Your task to perform on an android device: Add "usb-c to usb-a" to the cart on walmart.com, then select checkout. Image 0: 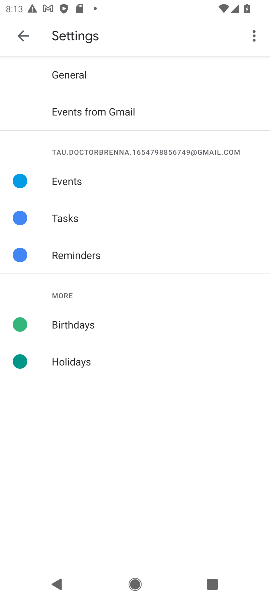
Step 0: press home button
Your task to perform on an android device: Add "usb-c to usb-a" to the cart on walmart.com, then select checkout. Image 1: 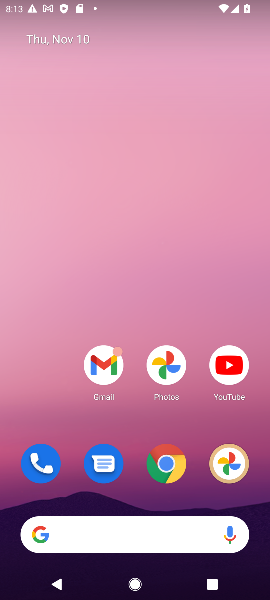
Step 1: click (168, 461)
Your task to perform on an android device: Add "usb-c to usb-a" to the cart on walmart.com, then select checkout. Image 2: 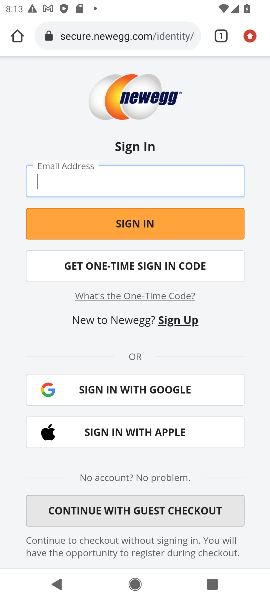
Step 2: click (131, 34)
Your task to perform on an android device: Add "usb-c to usb-a" to the cart on walmart.com, then select checkout. Image 3: 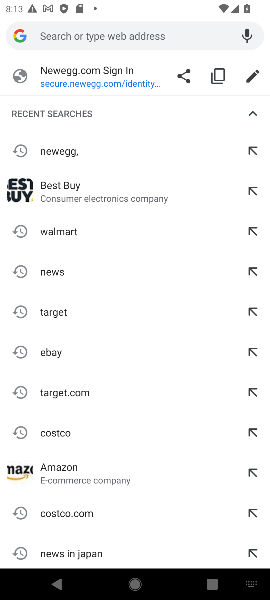
Step 3: click (58, 230)
Your task to perform on an android device: Add "usb-c to usb-a" to the cart on walmart.com, then select checkout. Image 4: 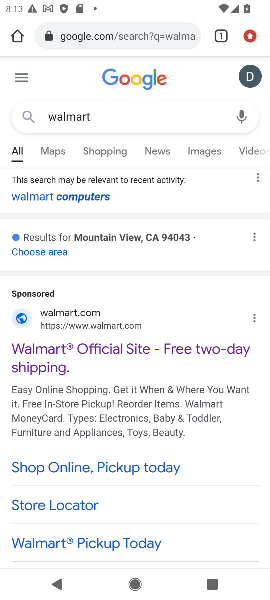
Step 4: drag from (137, 480) to (199, 91)
Your task to perform on an android device: Add "usb-c to usb-a" to the cart on walmart.com, then select checkout. Image 5: 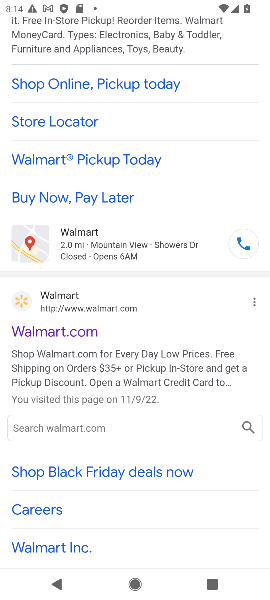
Step 5: drag from (55, 441) to (105, 272)
Your task to perform on an android device: Add "usb-c to usb-a" to the cart on walmart.com, then select checkout. Image 6: 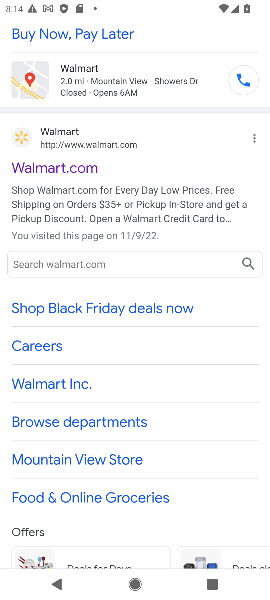
Step 6: click (46, 162)
Your task to perform on an android device: Add "usb-c to usb-a" to the cart on walmart.com, then select checkout. Image 7: 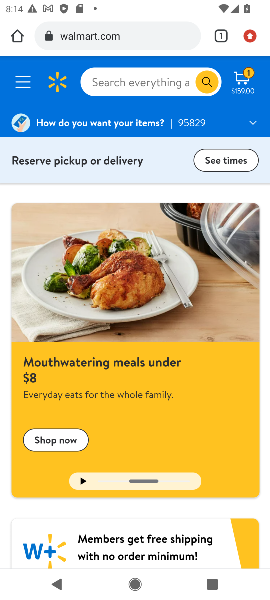
Step 7: click (145, 84)
Your task to perform on an android device: Add "usb-c to usb-a" to the cart on walmart.com, then select checkout. Image 8: 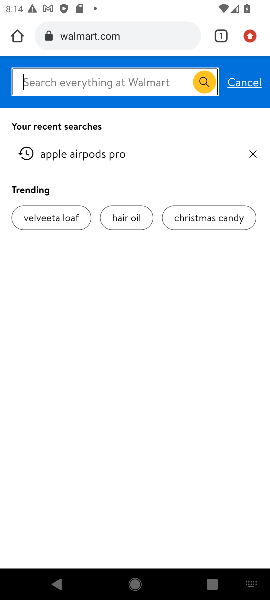
Step 8: type "usb-c to usb-a"
Your task to perform on an android device: Add "usb-c to usb-a" to the cart on walmart.com, then select checkout. Image 9: 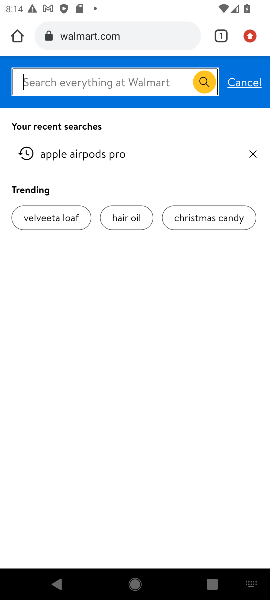
Step 9: press enter
Your task to perform on an android device: Add "usb-c to usb-a" to the cart on walmart.com, then select checkout. Image 10: 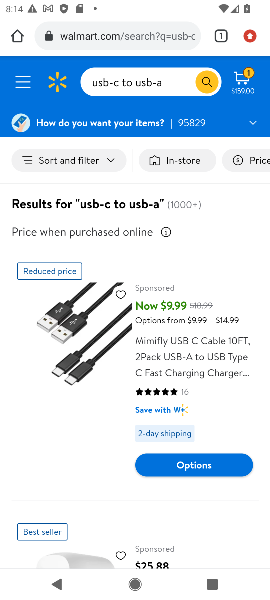
Step 10: click (196, 348)
Your task to perform on an android device: Add "usb-c to usb-a" to the cart on walmart.com, then select checkout. Image 11: 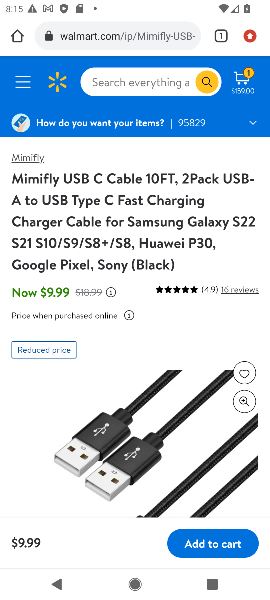
Step 11: click (216, 545)
Your task to perform on an android device: Add "usb-c to usb-a" to the cart on walmart.com, then select checkout. Image 12: 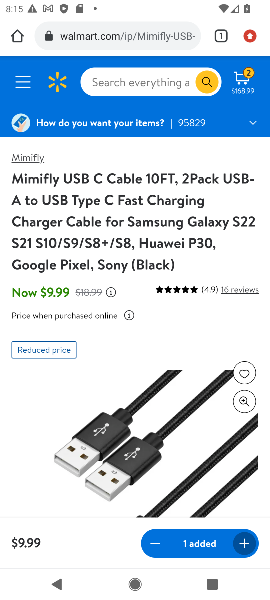
Step 12: click (247, 79)
Your task to perform on an android device: Add "usb-c to usb-a" to the cart on walmart.com, then select checkout. Image 13: 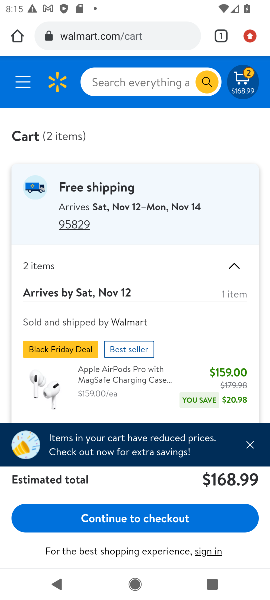
Step 13: drag from (158, 325) to (208, 140)
Your task to perform on an android device: Add "usb-c to usb-a" to the cart on walmart.com, then select checkout. Image 14: 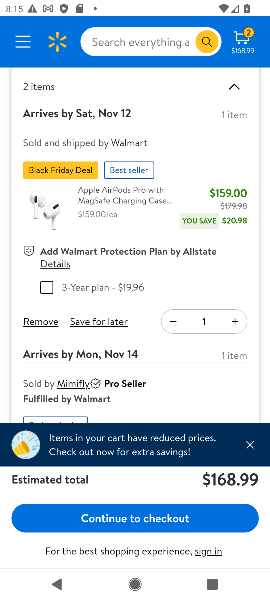
Step 14: click (44, 320)
Your task to perform on an android device: Add "usb-c to usb-a" to the cart on walmart.com, then select checkout. Image 15: 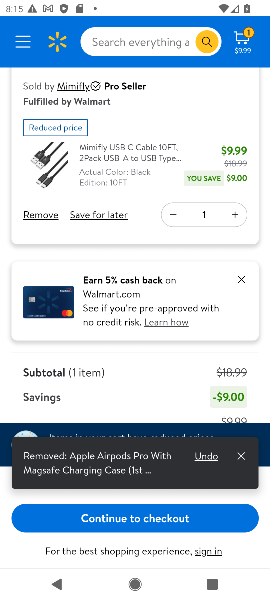
Step 15: click (165, 517)
Your task to perform on an android device: Add "usb-c to usb-a" to the cart on walmart.com, then select checkout. Image 16: 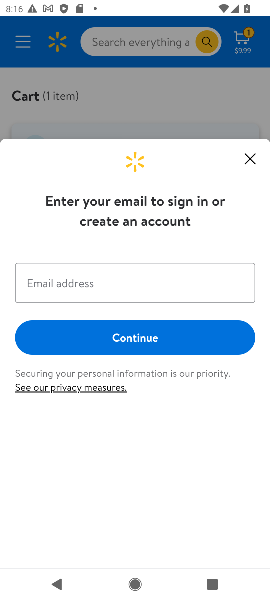
Step 16: task complete